Your task to perform on an android device: set the timer Image 0: 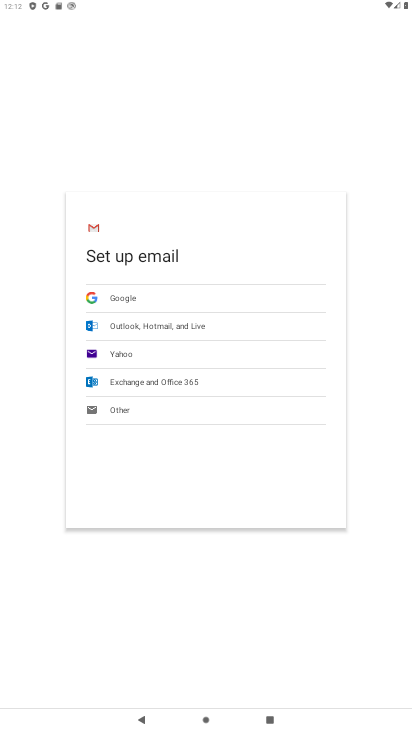
Step 0: press home button
Your task to perform on an android device: set the timer Image 1: 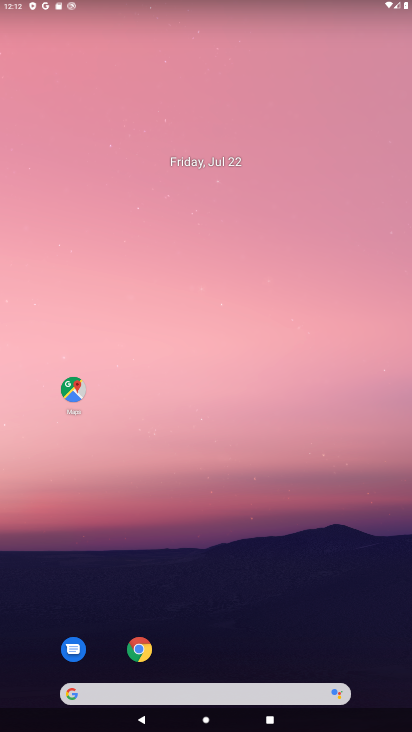
Step 1: drag from (248, 565) to (215, 74)
Your task to perform on an android device: set the timer Image 2: 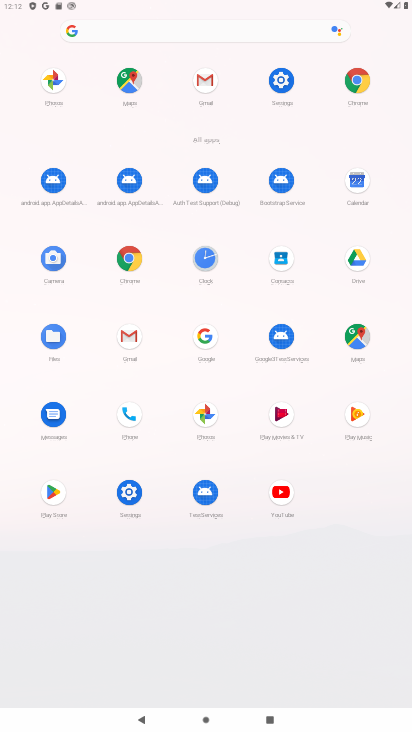
Step 2: click (199, 252)
Your task to perform on an android device: set the timer Image 3: 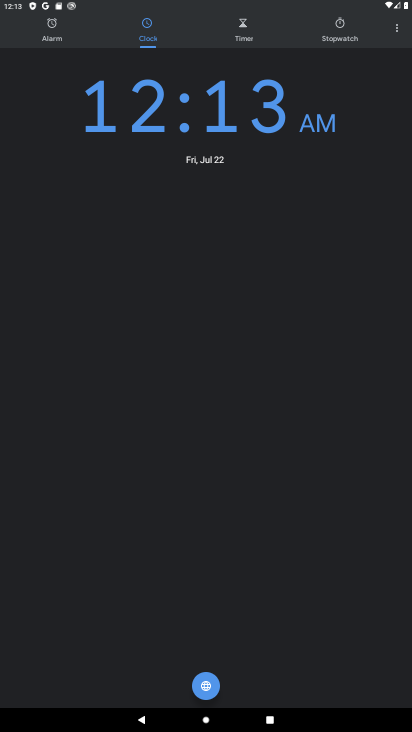
Step 3: click (240, 40)
Your task to perform on an android device: set the timer Image 4: 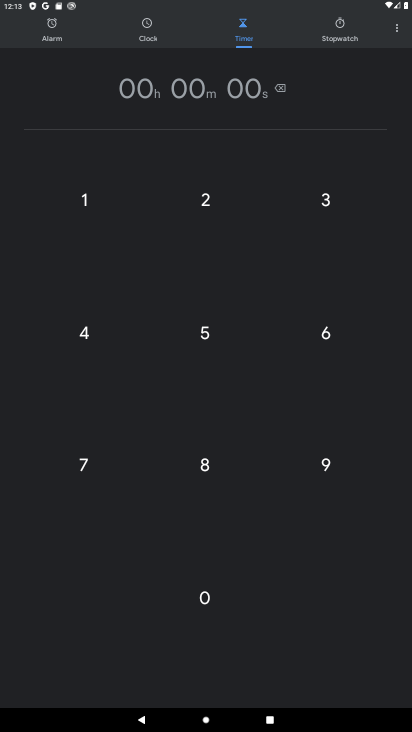
Step 4: click (213, 201)
Your task to perform on an android device: set the timer Image 5: 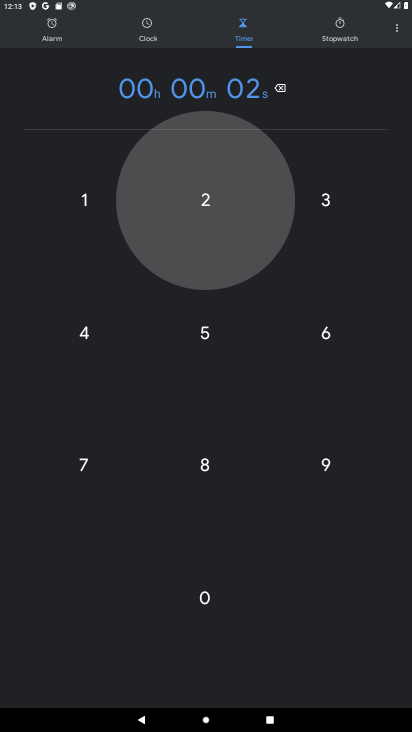
Step 5: click (213, 201)
Your task to perform on an android device: set the timer Image 6: 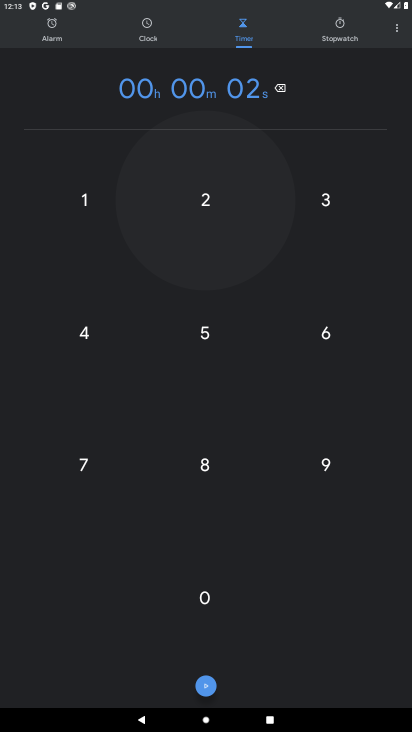
Step 6: click (213, 201)
Your task to perform on an android device: set the timer Image 7: 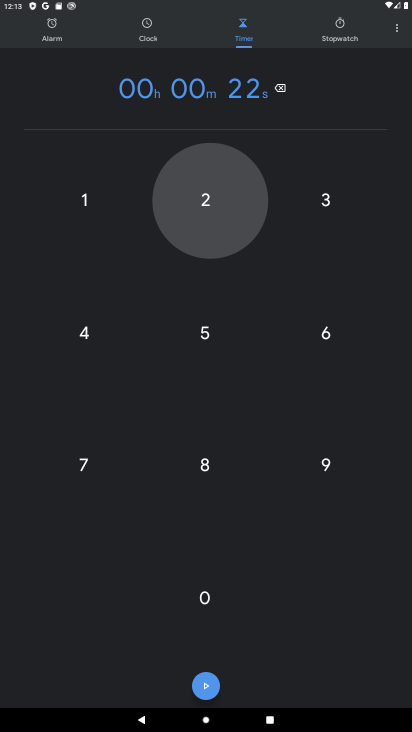
Step 7: click (213, 201)
Your task to perform on an android device: set the timer Image 8: 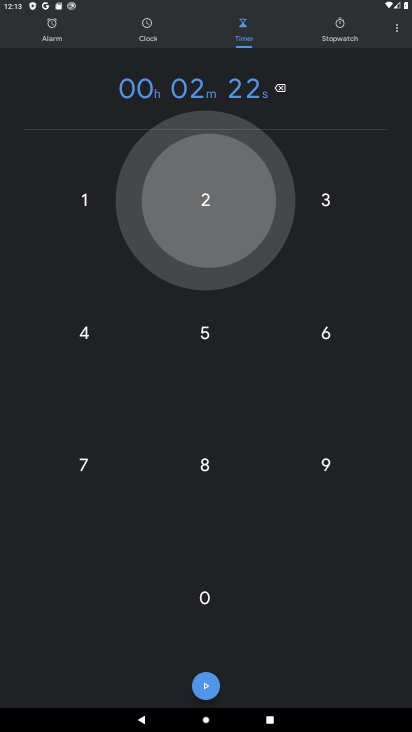
Step 8: click (213, 201)
Your task to perform on an android device: set the timer Image 9: 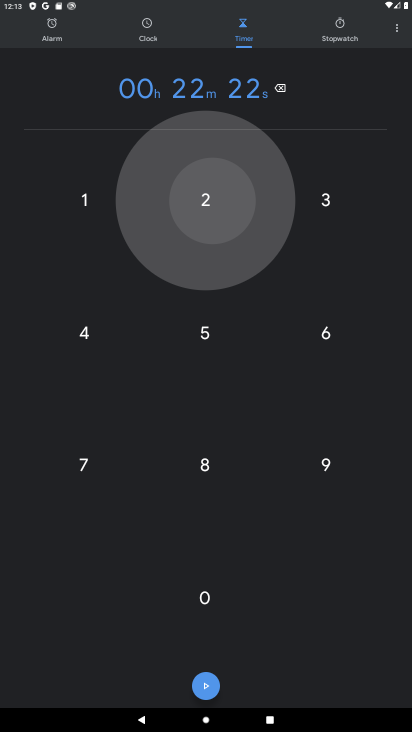
Step 9: click (213, 201)
Your task to perform on an android device: set the timer Image 10: 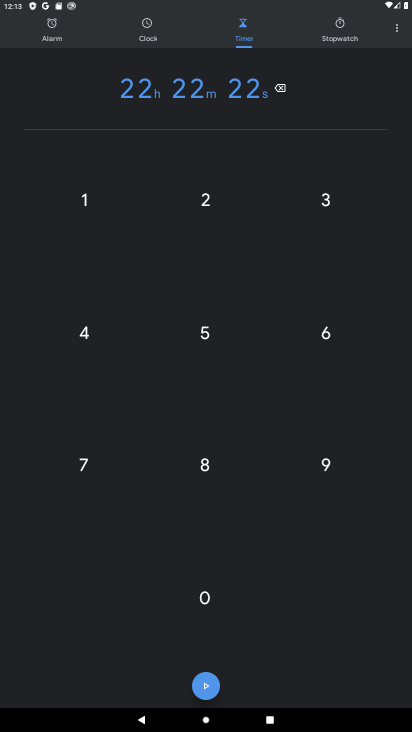
Step 10: click (212, 687)
Your task to perform on an android device: set the timer Image 11: 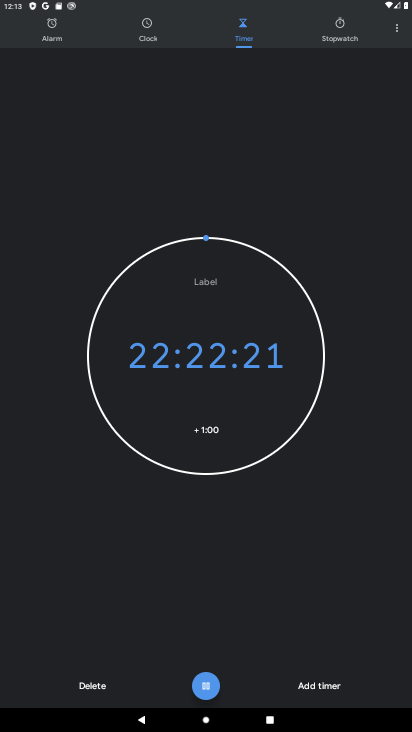
Step 11: task complete